Your task to perform on an android device: Go to Reddit.com Image 0: 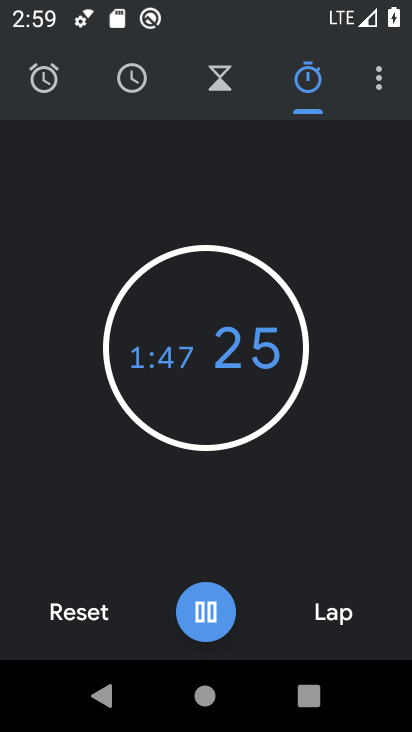
Step 0: press home button
Your task to perform on an android device: Go to Reddit.com Image 1: 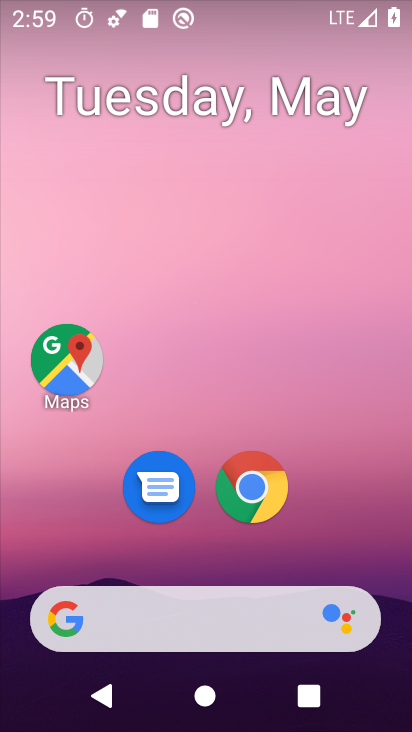
Step 1: drag from (397, 645) to (350, 354)
Your task to perform on an android device: Go to Reddit.com Image 2: 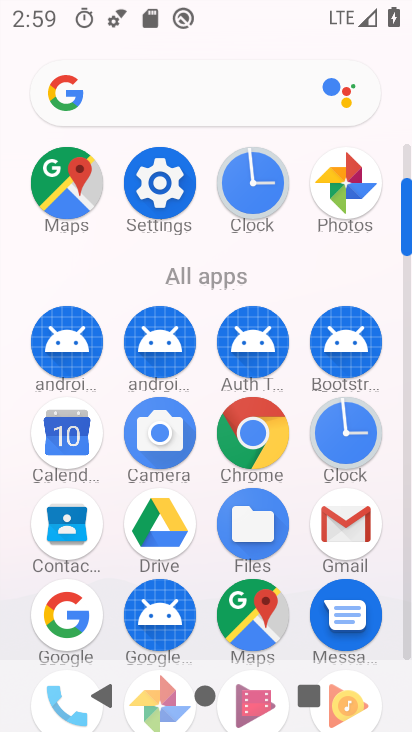
Step 2: click (261, 423)
Your task to perform on an android device: Go to Reddit.com Image 3: 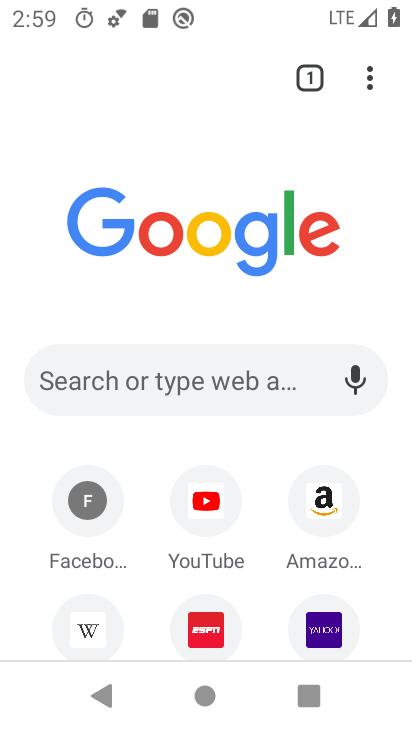
Step 3: click (194, 394)
Your task to perform on an android device: Go to Reddit.com Image 4: 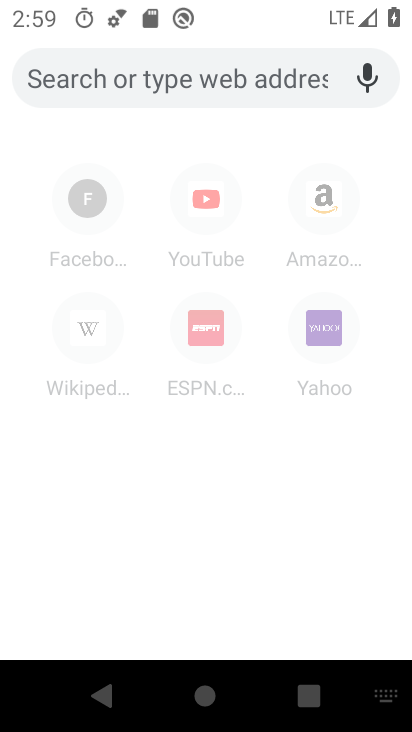
Step 4: type "Reddit.com"
Your task to perform on an android device: Go to Reddit.com Image 5: 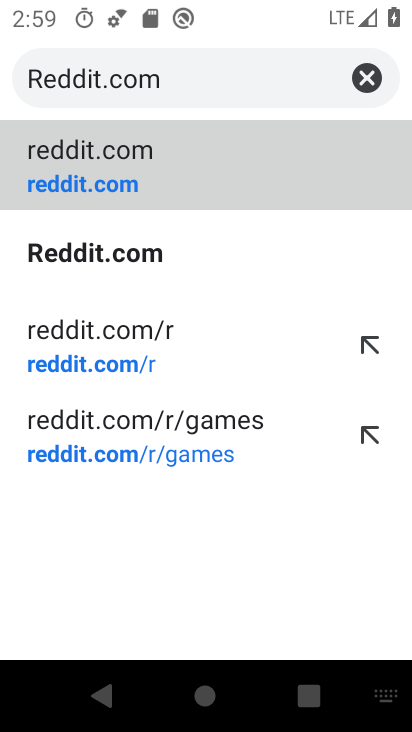
Step 5: click (102, 252)
Your task to perform on an android device: Go to Reddit.com Image 6: 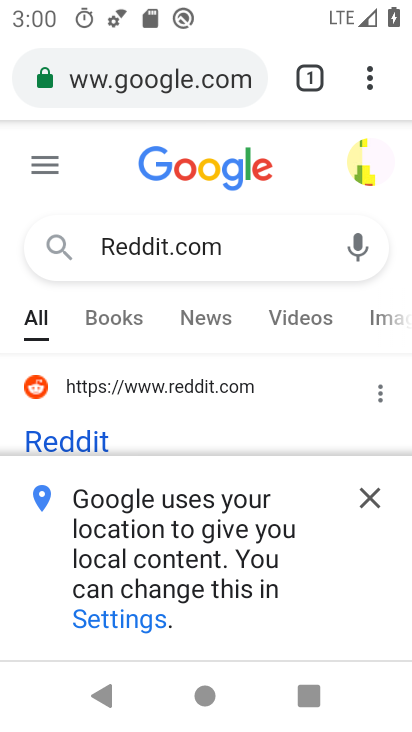
Step 6: task complete